Your task to perform on an android device: set the timer Image 0: 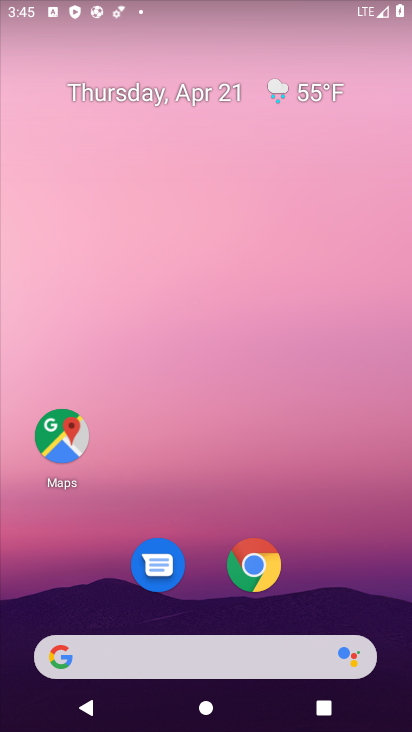
Step 0: drag from (334, 432) to (360, 81)
Your task to perform on an android device: set the timer Image 1: 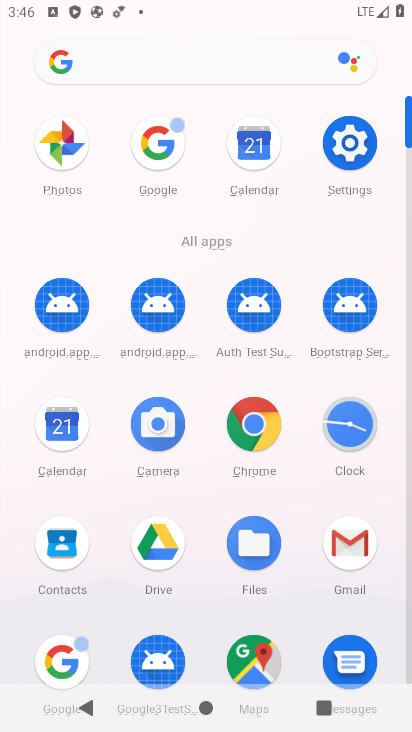
Step 1: click (358, 432)
Your task to perform on an android device: set the timer Image 2: 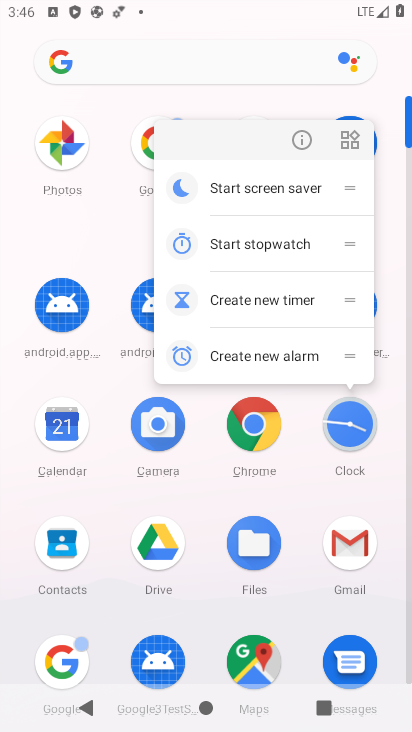
Step 2: click (359, 437)
Your task to perform on an android device: set the timer Image 3: 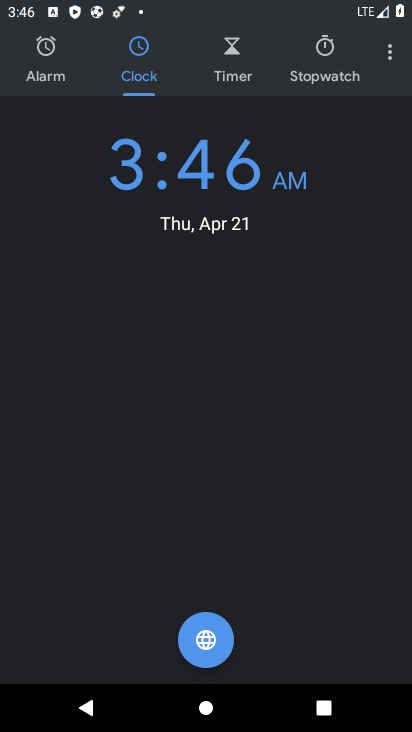
Step 3: click (233, 60)
Your task to perform on an android device: set the timer Image 4: 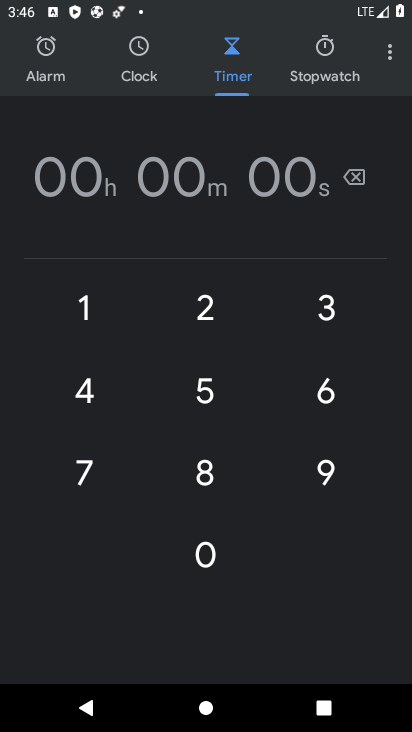
Step 4: click (86, 318)
Your task to perform on an android device: set the timer Image 5: 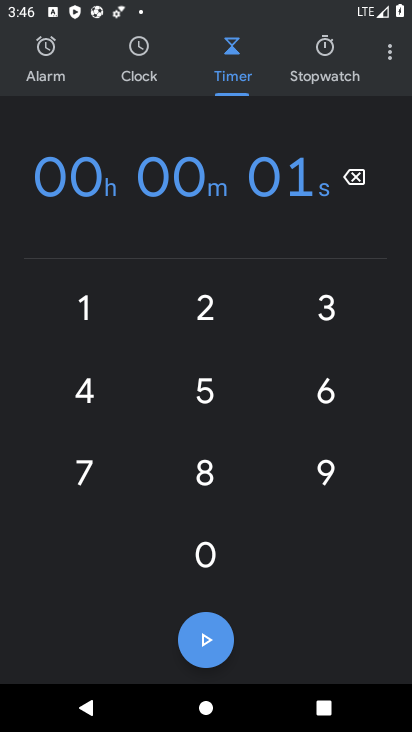
Step 5: task complete